Your task to perform on an android device: Go to Android settings Image 0: 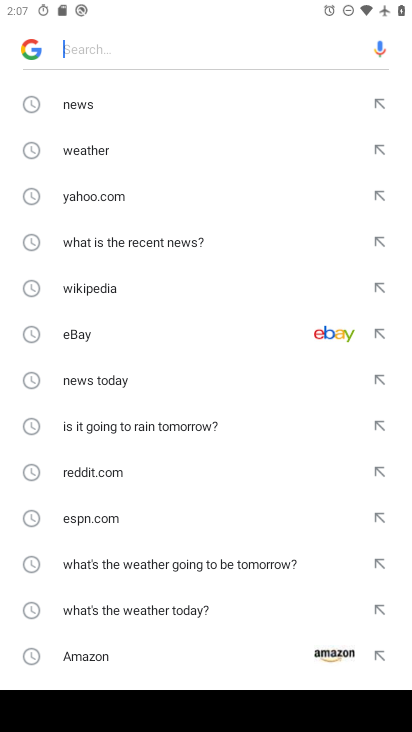
Step 0: press home button
Your task to perform on an android device: Go to Android settings Image 1: 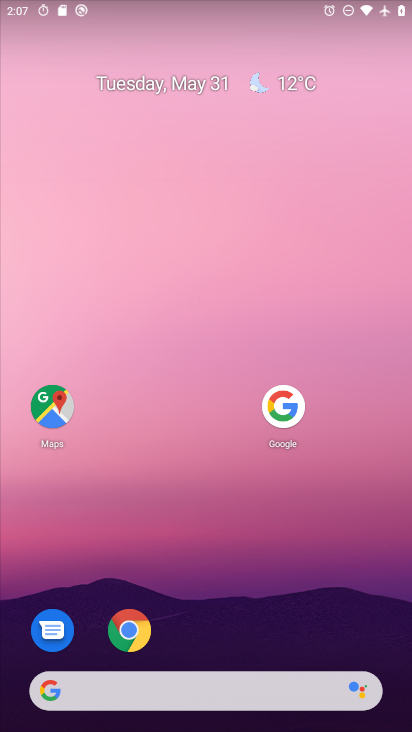
Step 1: drag from (160, 701) to (163, 174)
Your task to perform on an android device: Go to Android settings Image 2: 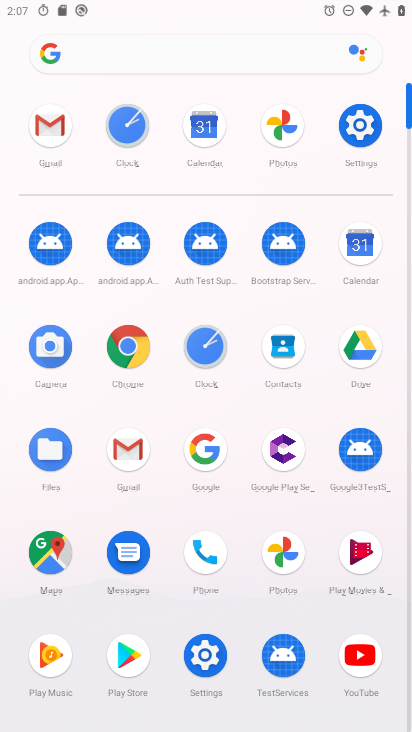
Step 2: click (352, 120)
Your task to perform on an android device: Go to Android settings Image 3: 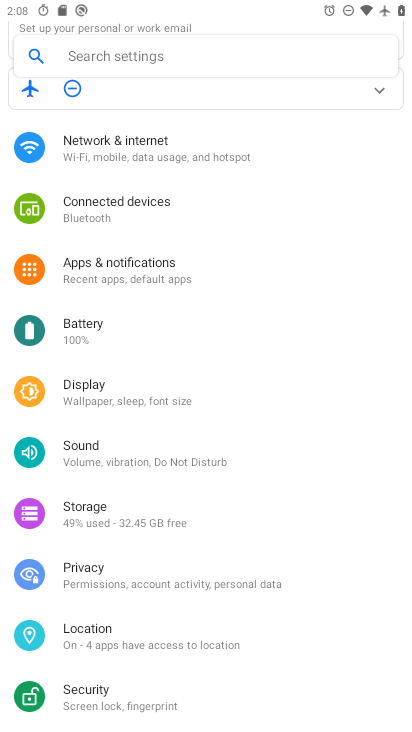
Step 3: task complete